Your task to perform on an android device: What's the weather? Image 0: 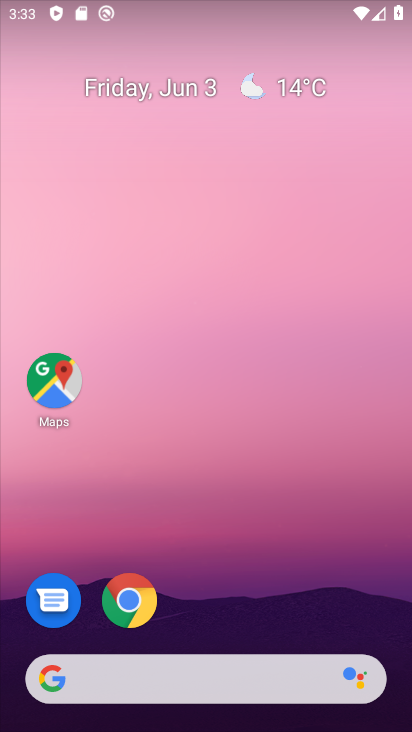
Step 0: click (306, 130)
Your task to perform on an android device: What's the weather? Image 1: 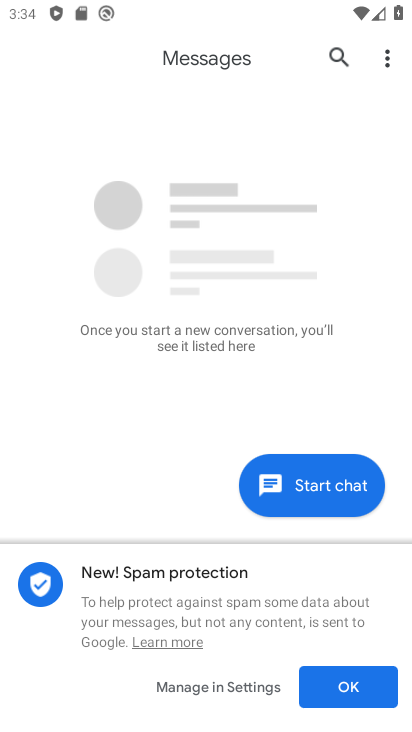
Step 1: press home button
Your task to perform on an android device: What's the weather? Image 2: 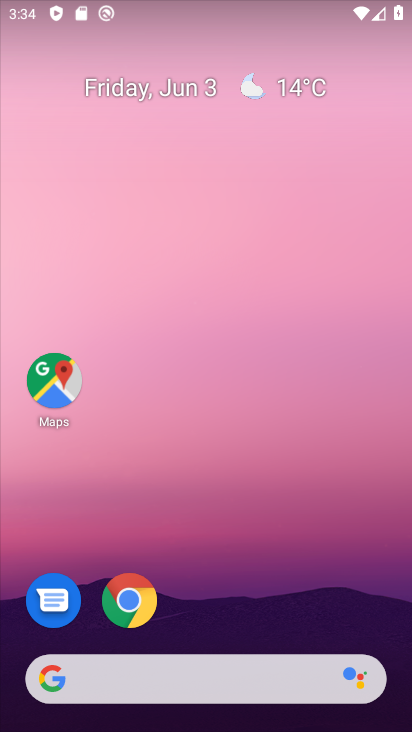
Step 2: click (132, 676)
Your task to perform on an android device: What's the weather? Image 3: 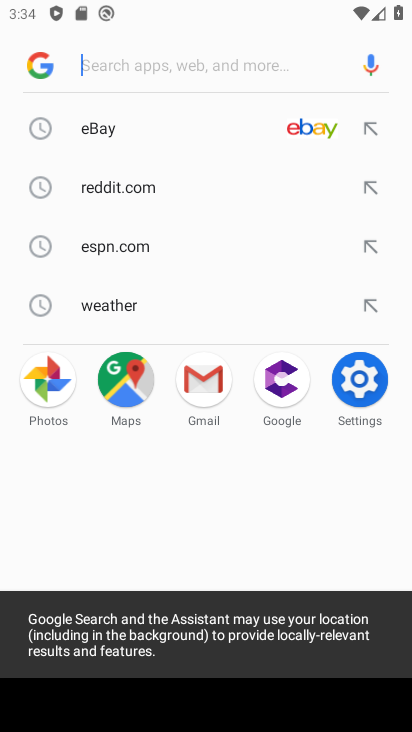
Step 3: click (106, 311)
Your task to perform on an android device: What's the weather? Image 4: 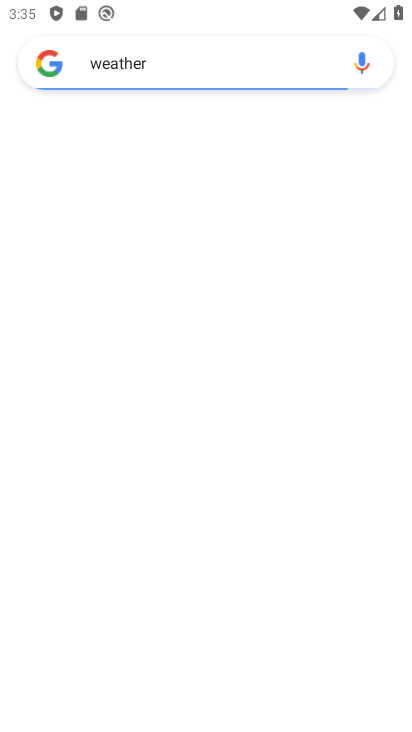
Step 4: task complete